Your task to perform on an android device: Open settings Image 0: 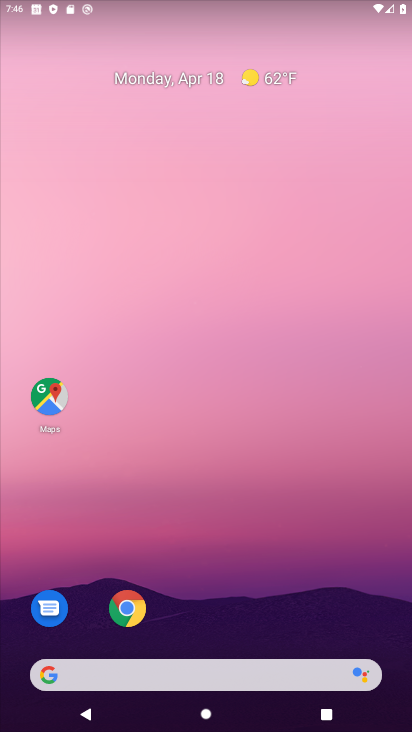
Step 0: drag from (211, 665) to (210, 148)
Your task to perform on an android device: Open settings Image 1: 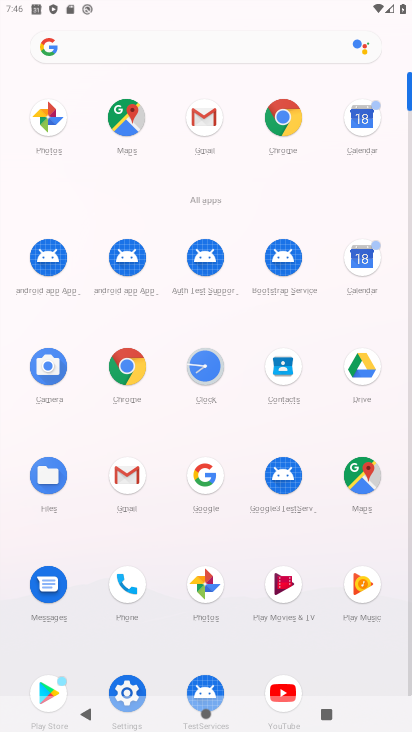
Step 1: click (125, 681)
Your task to perform on an android device: Open settings Image 2: 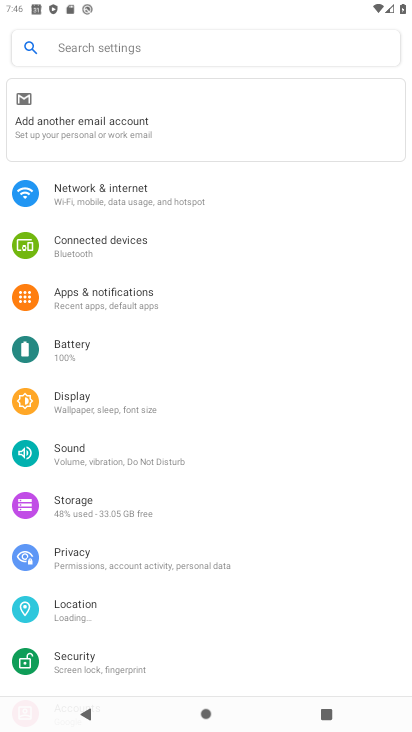
Step 2: task complete